Your task to perform on an android device: Open wifi settings Image 0: 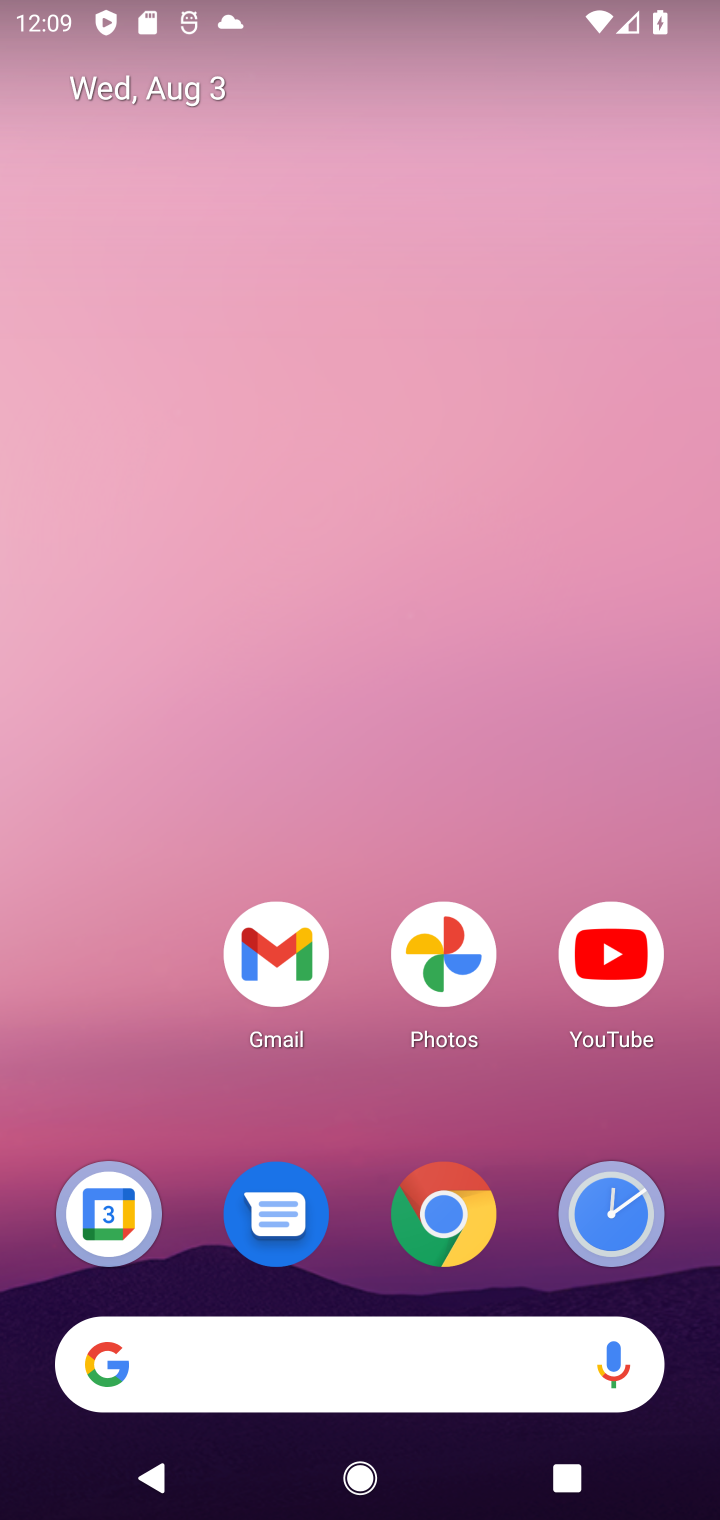
Step 0: drag from (468, 1256) to (502, 24)
Your task to perform on an android device: Open wifi settings Image 1: 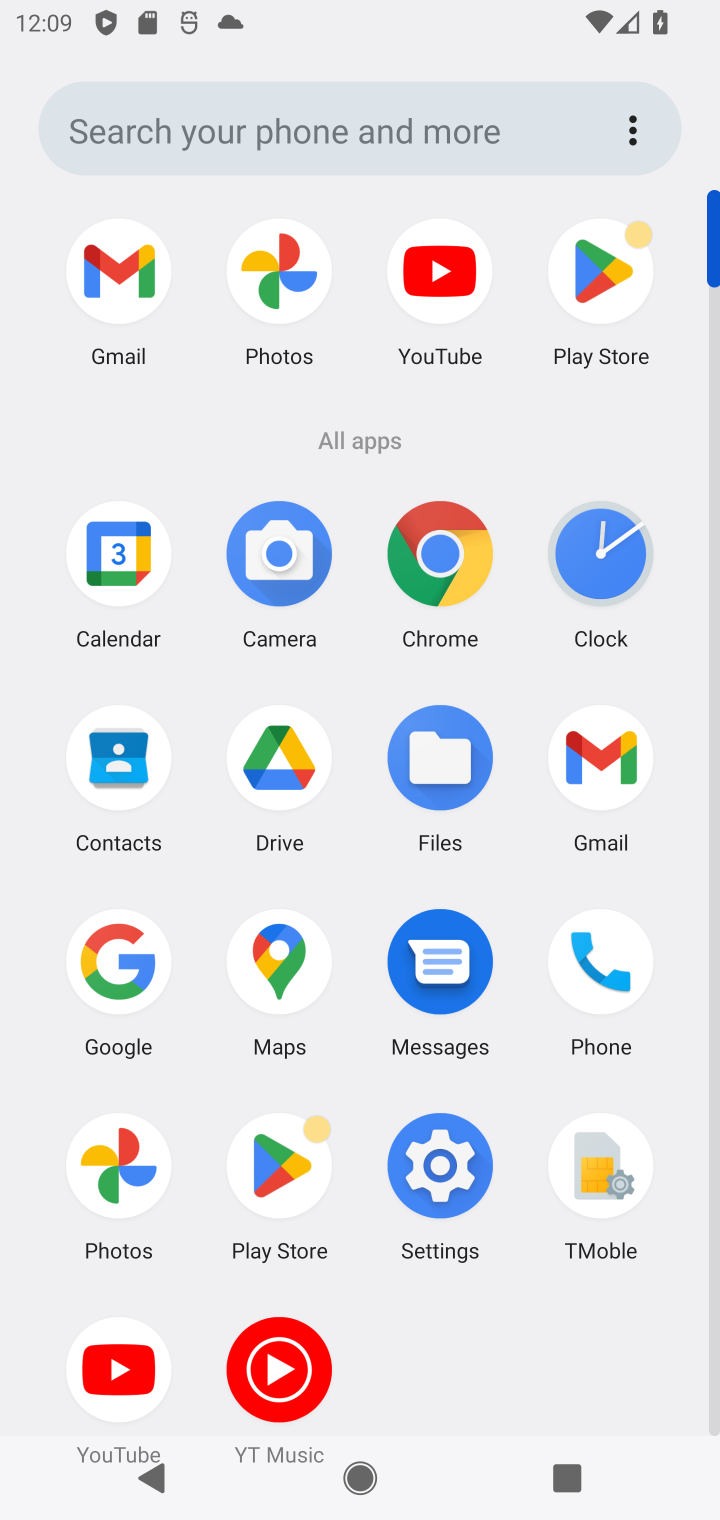
Step 1: click (445, 1159)
Your task to perform on an android device: Open wifi settings Image 2: 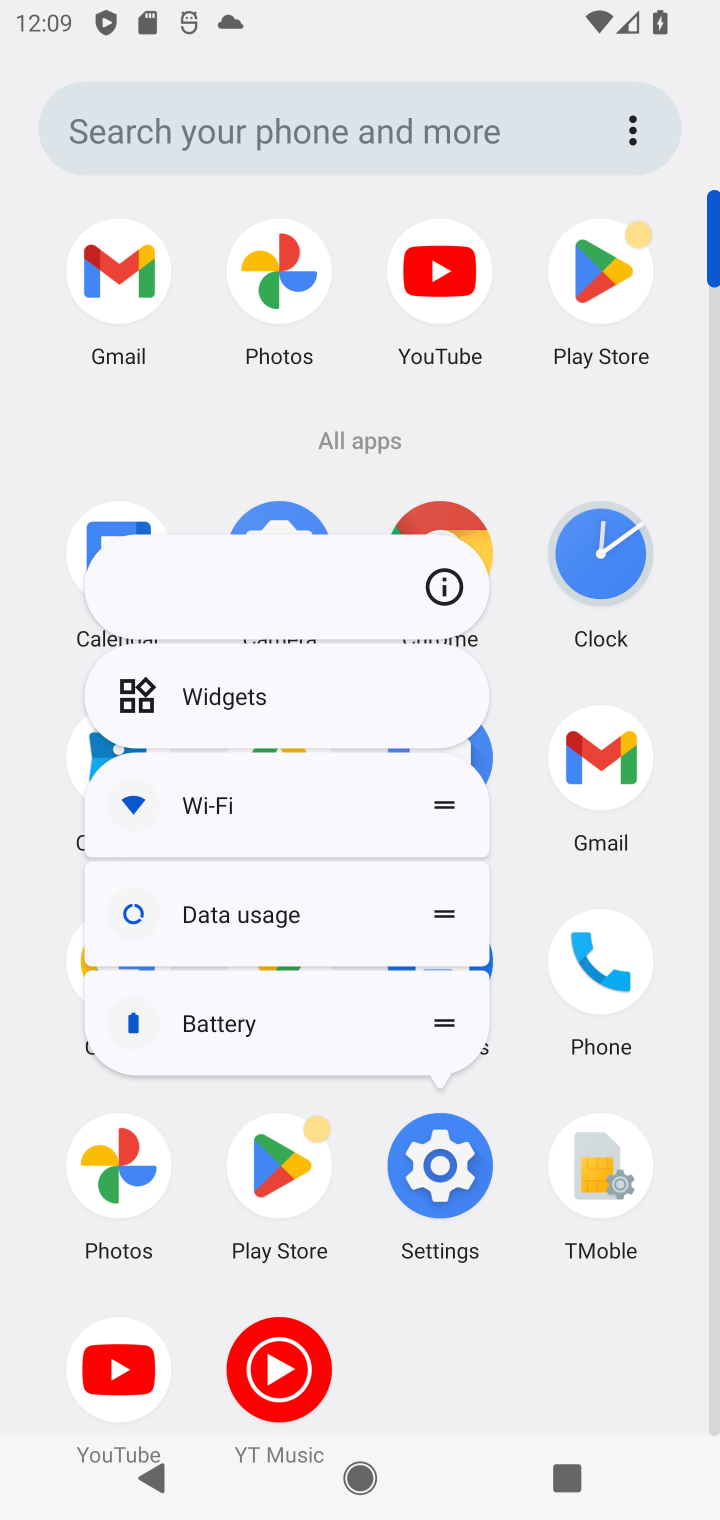
Step 2: click (328, 804)
Your task to perform on an android device: Open wifi settings Image 3: 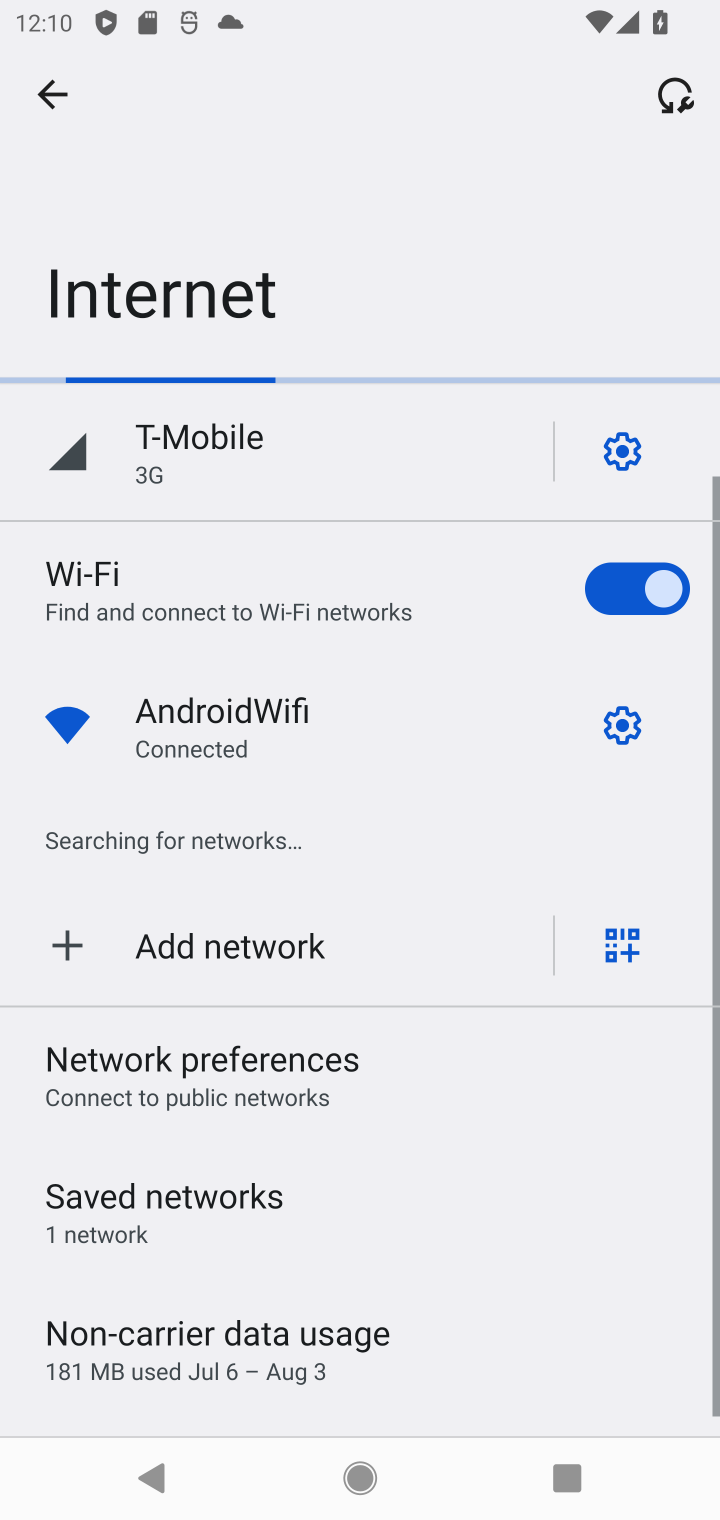
Step 3: task complete